Your task to perform on an android device: Open ESPN.com Image 0: 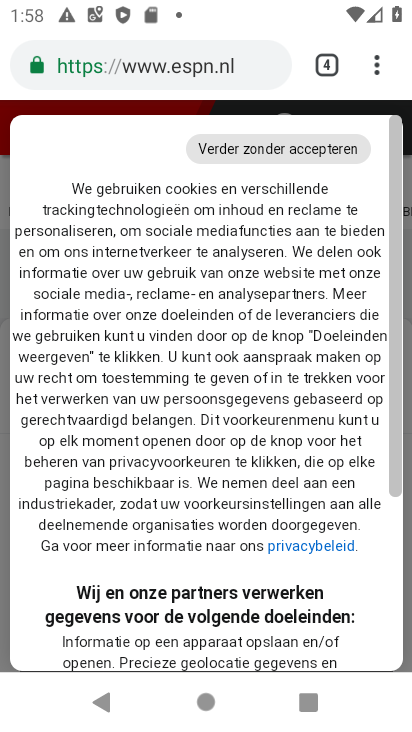
Step 0: task complete